Your task to perform on an android device: View the shopping cart on costco. Add "corsair k70" to the cart on costco Image 0: 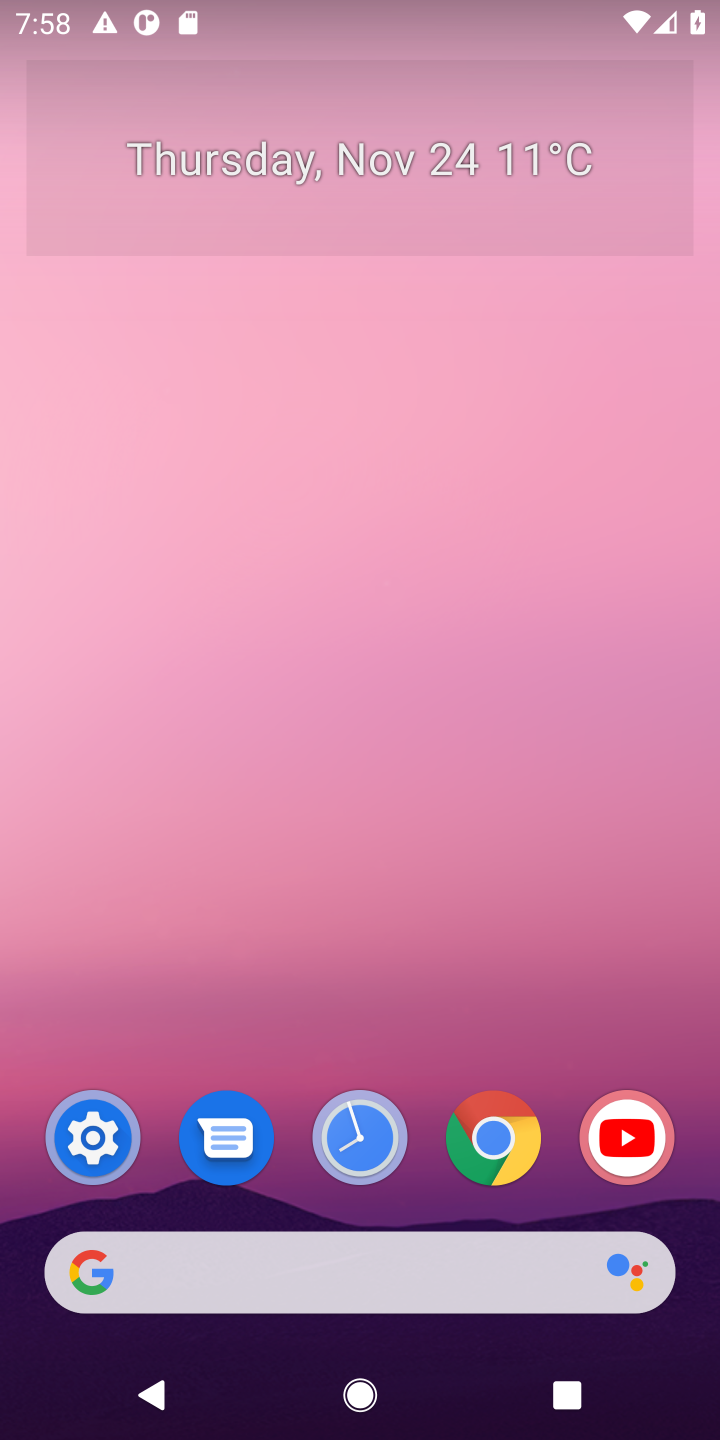
Step 0: click (283, 1298)
Your task to perform on an android device: View the shopping cart on costco. Add "corsair k70" to the cart on costco Image 1: 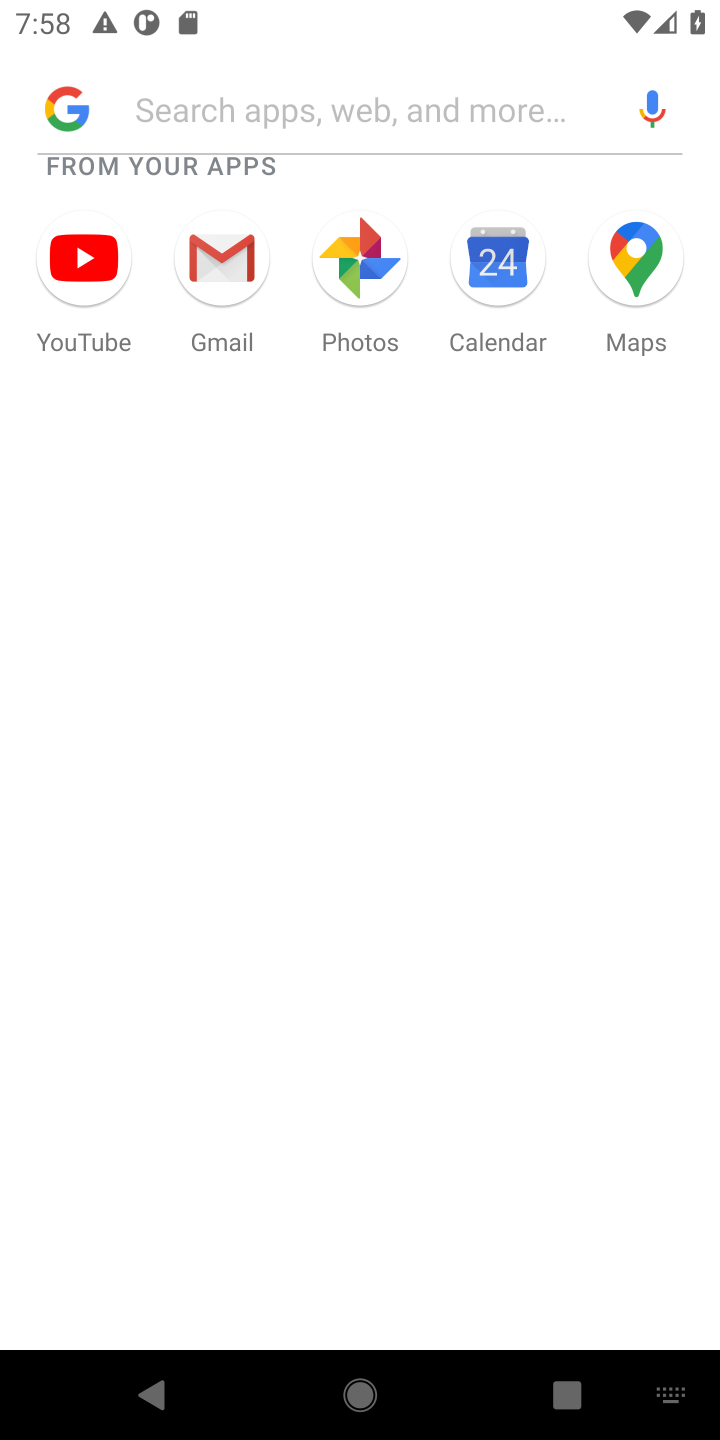
Step 1: type "costco"
Your task to perform on an android device: View the shopping cart on costco. Add "corsair k70" to the cart on costco Image 2: 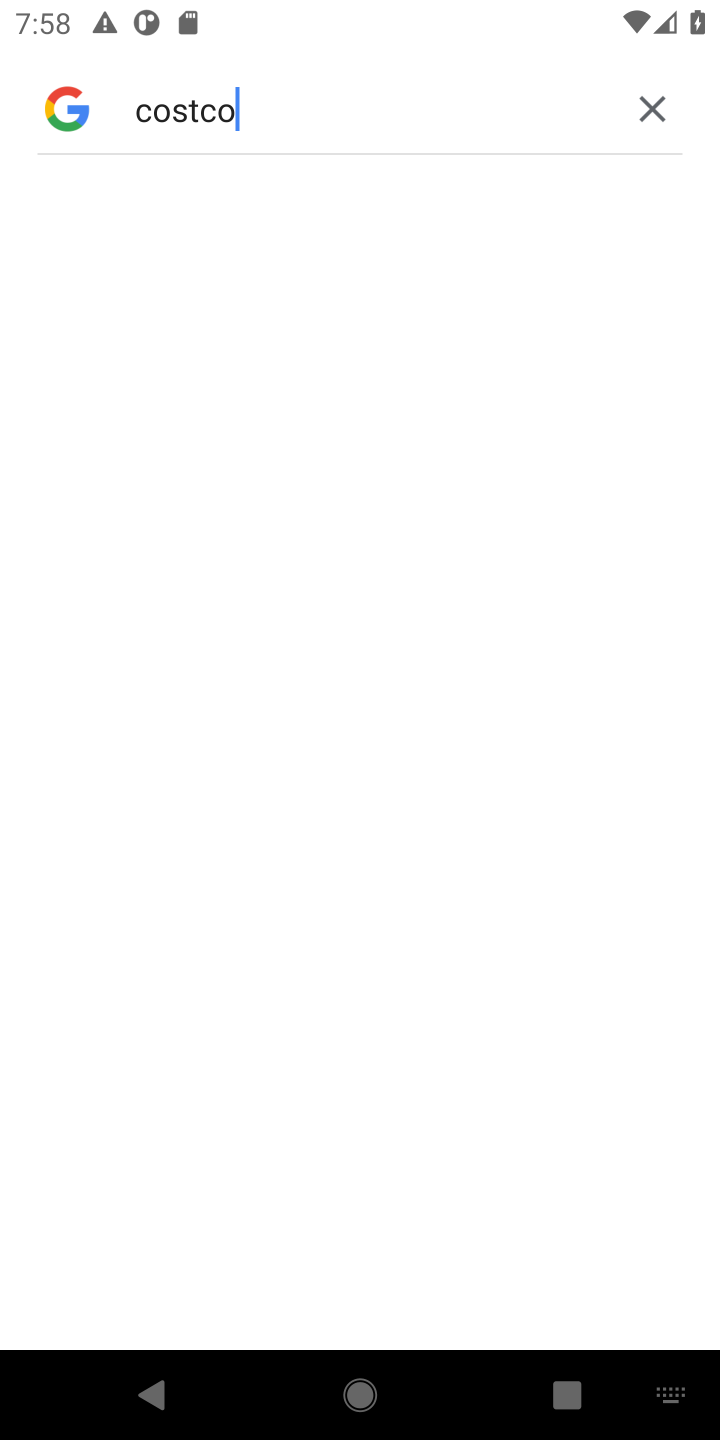
Step 2: press home button
Your task to perform on an android device: View the shopping cart on costco. Add "corsair k70" to the cart on costco Image 3: 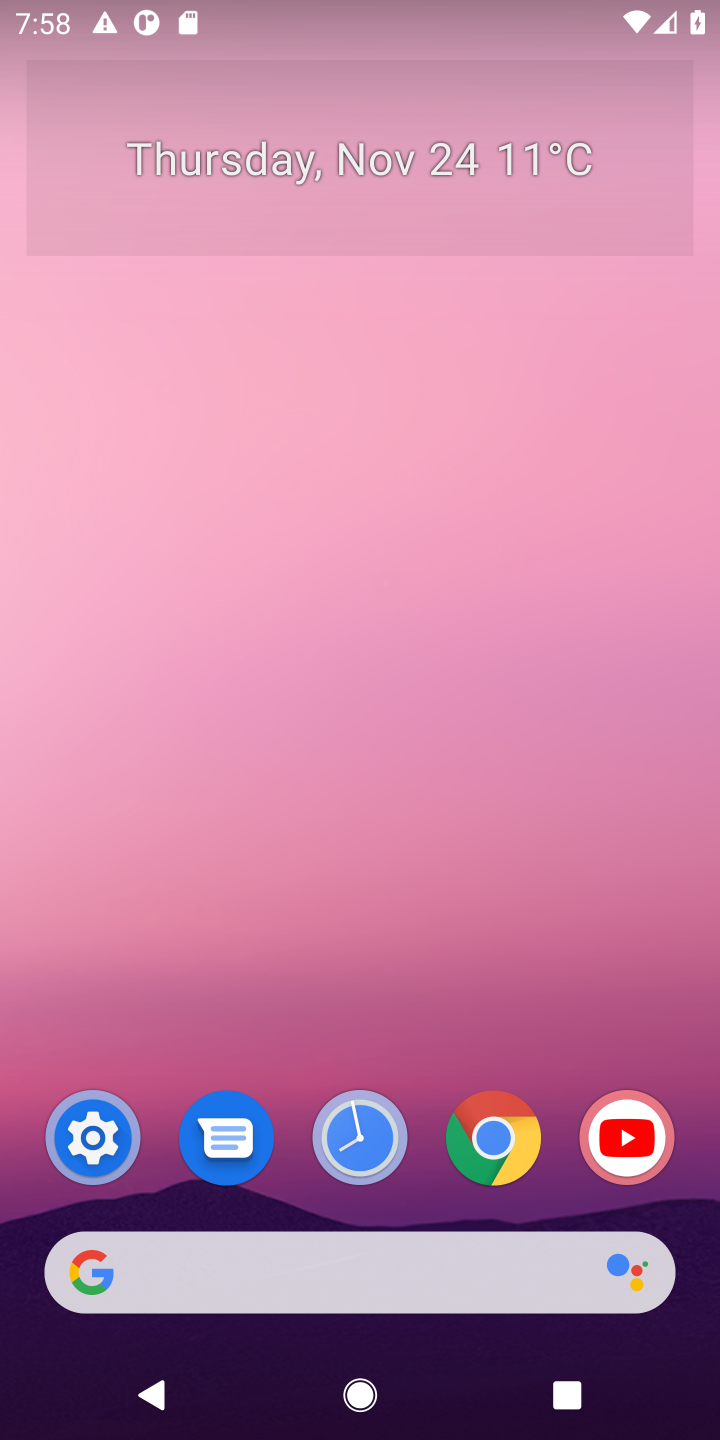
Step 3: click (302, 1264)
Your task to perform on an android device: View the shopping cart on costco. Add "corsair k70" to the cart on costco Image 4: 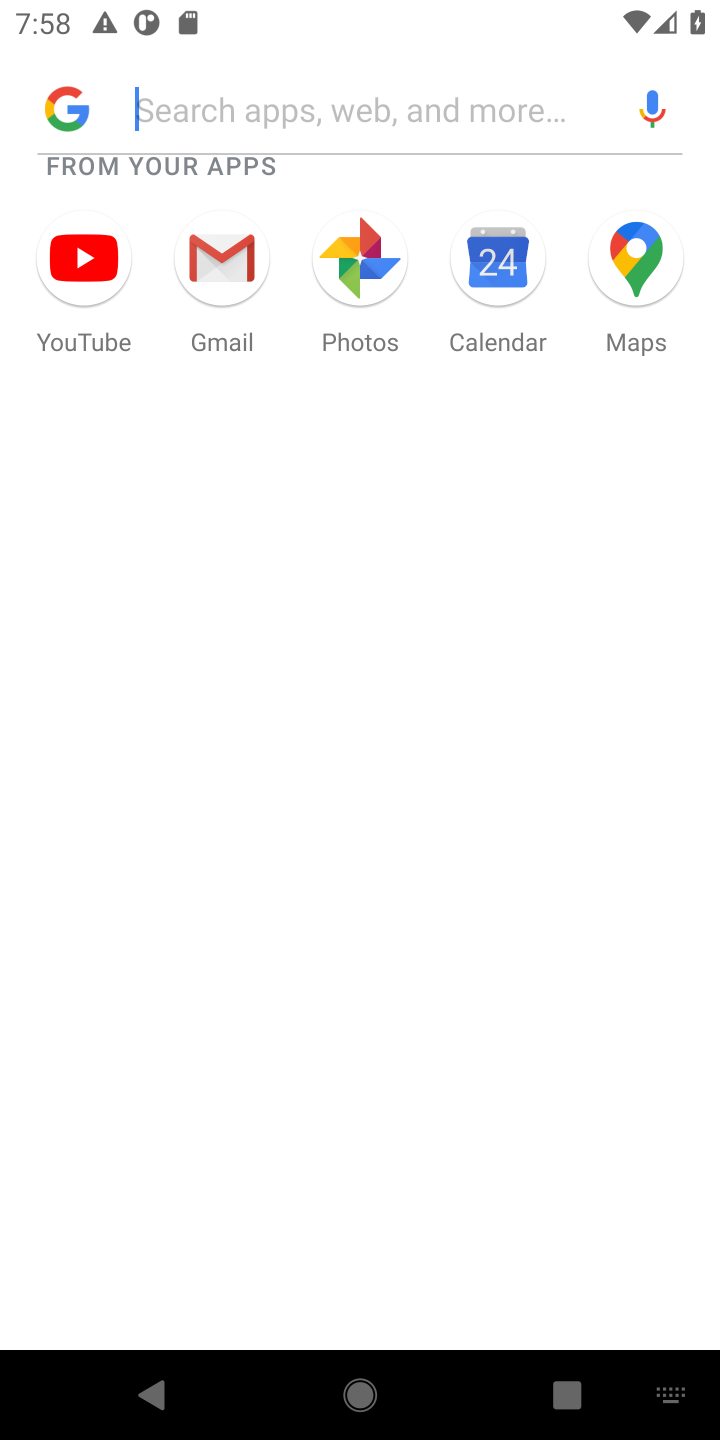
Step 4: type "costco"
Your task to perform on an android device: View the shopping cart on costco. Add "corsair k70" to the cart on costco Image 5: 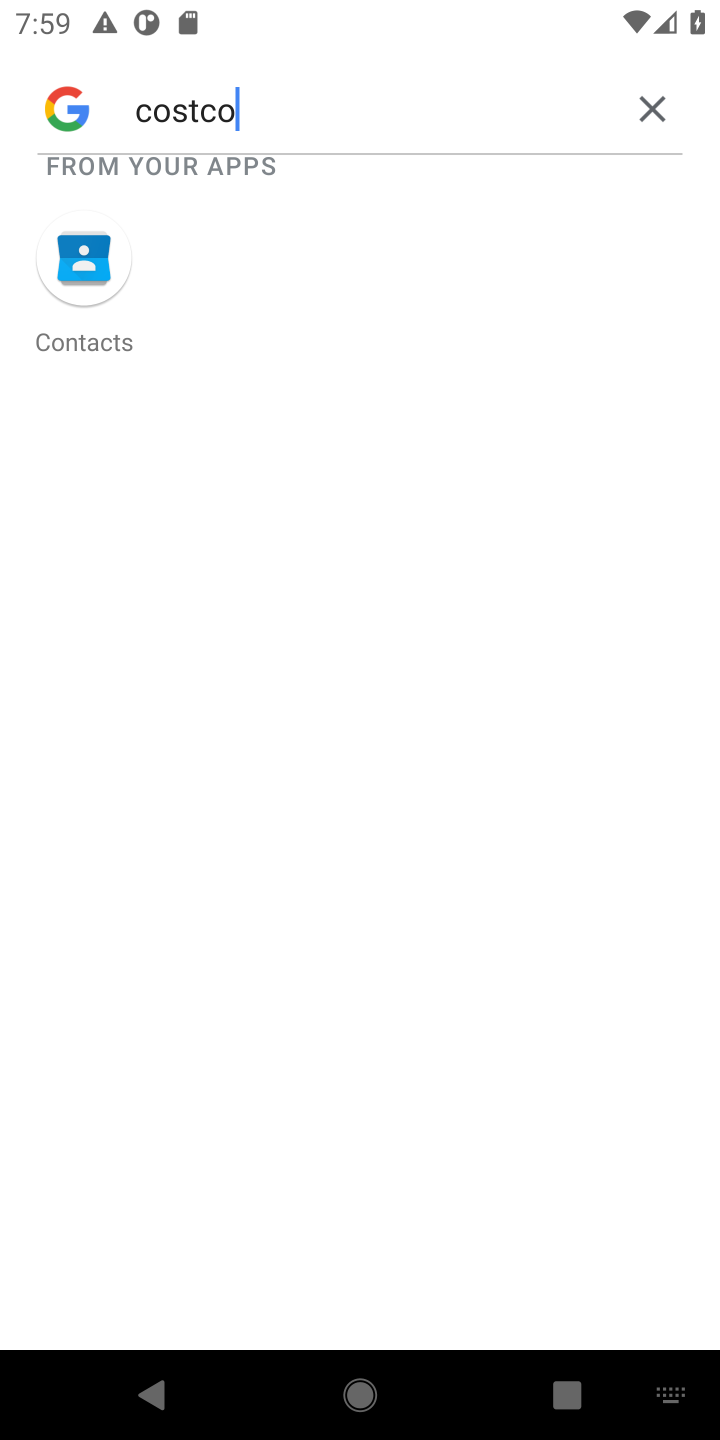
Step 5: task complete